Your task to perform on an android device: show emergency info Image 0: 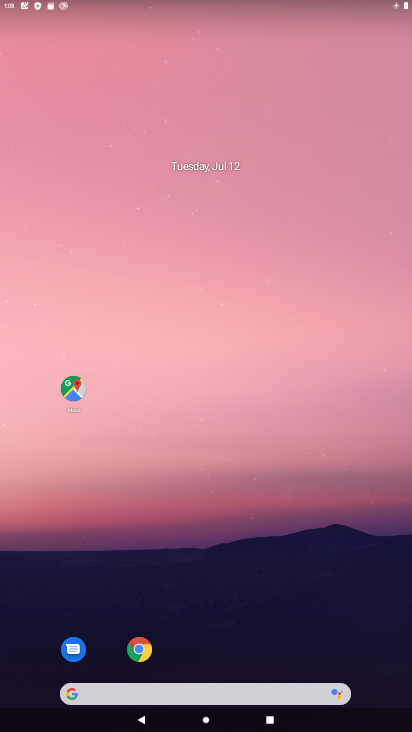
Step 0: drag from (237, 622) to (184, 155)
Your task to perform on an android device: show emergency info Image 1: 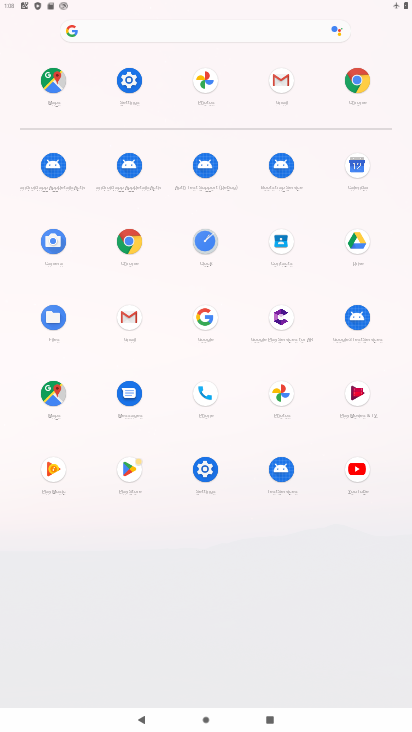
Step 1: click (138, 83)
Your task to perform on an android device: show emergency info Image 2: 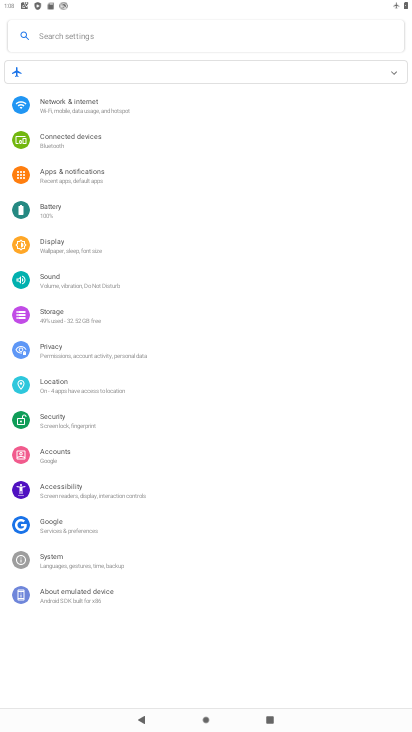
Step 2: click (104, 590)
Your task to perform on an android device: show emergency info Image 3: 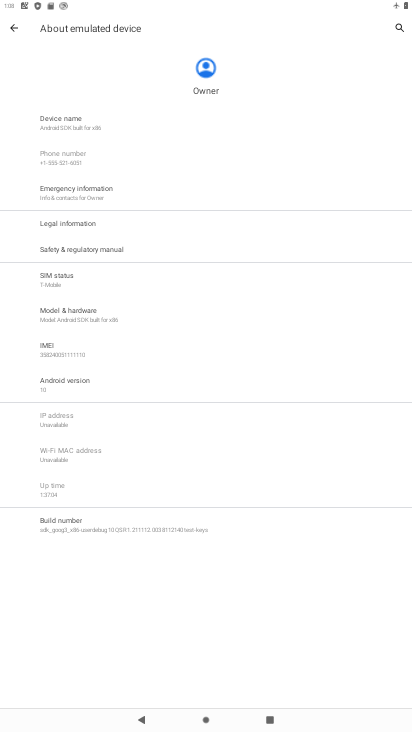
Step 3: click (154, 184)
Your task to perform on an android device: show emergency info Image 4: 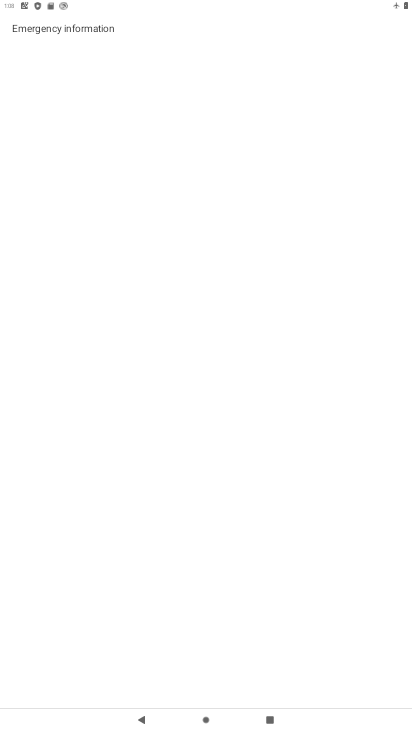
Step 4: task complete